Your task to perform on an android device: toggle location history Image 0: 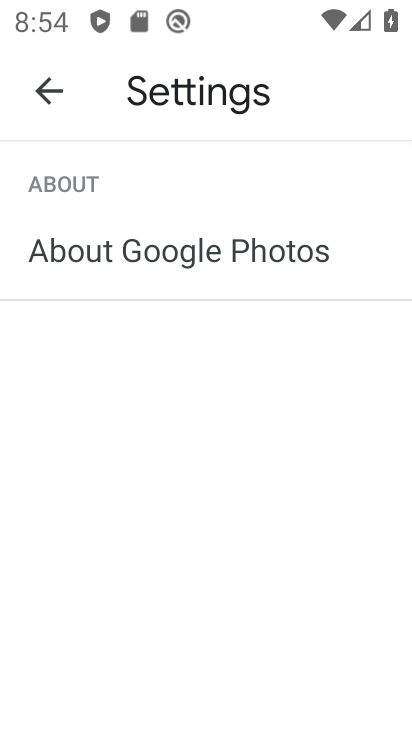
Step 0: press home button
Your task to perform on an android device: toggle location history Image 1: 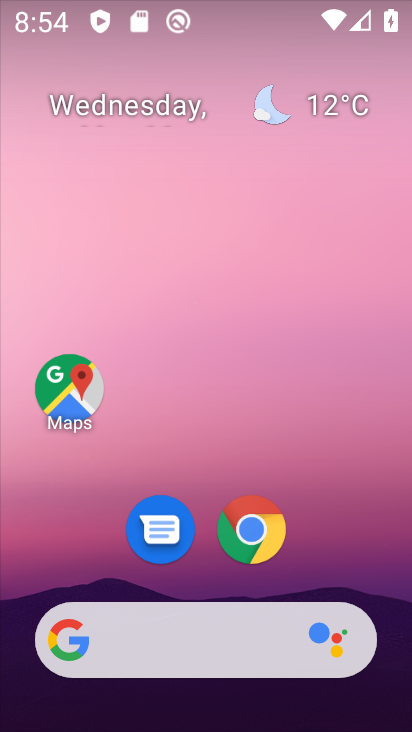
Step 1: drag from (186, 601) to (250, 70)
Your task to perform on an android device: toggle location history Image 2: 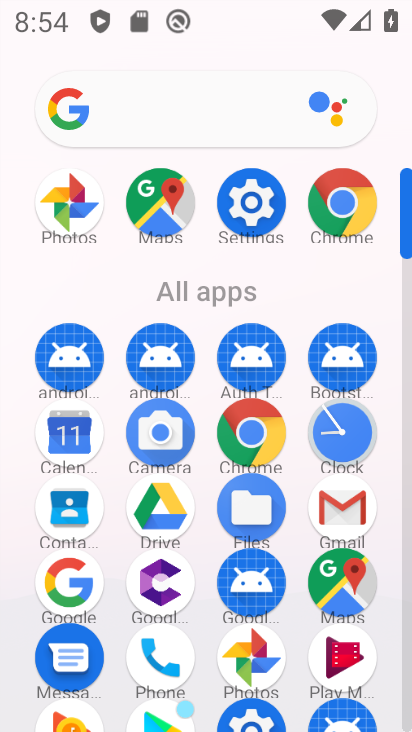
Step 2: click (259, 203)
Your task to perform on an android device: toggle location history Image 3: 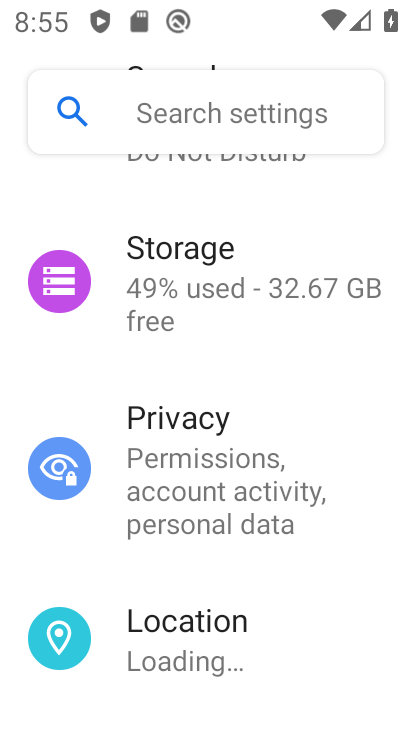
Step 3: click (191, 658)
Your task to perform on an android device: toggle location history Image 4: 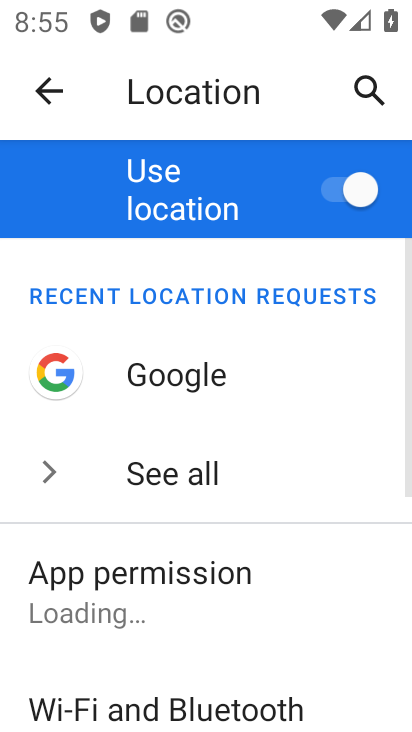
Step 4: drag from (190, 705) to (211, 275)
Your task to perform on an android device: toggle location history Image 5: 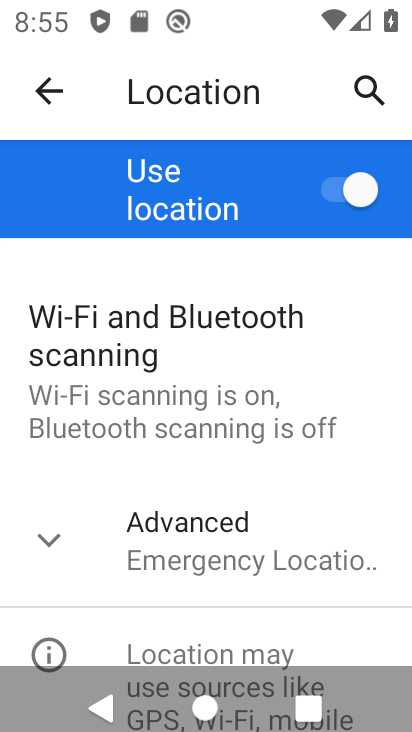
Step 5: drag from (236, 539) to (296, 287)
Your task to perform on an android device: toggle location history Image 6: 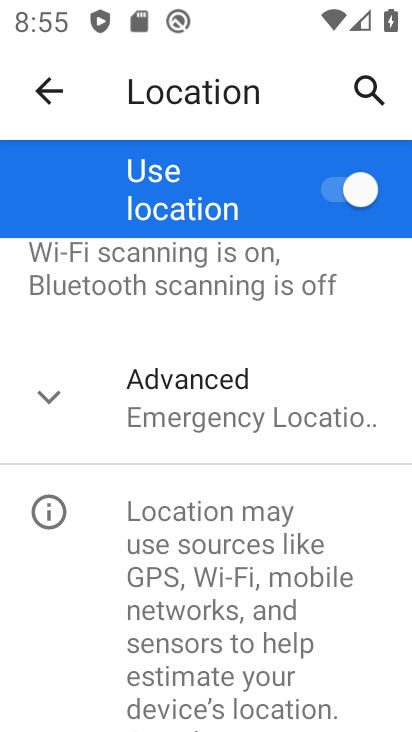
Step 6: click (225, 402)
Your task to perform on an android device: toggle location history Image 7: 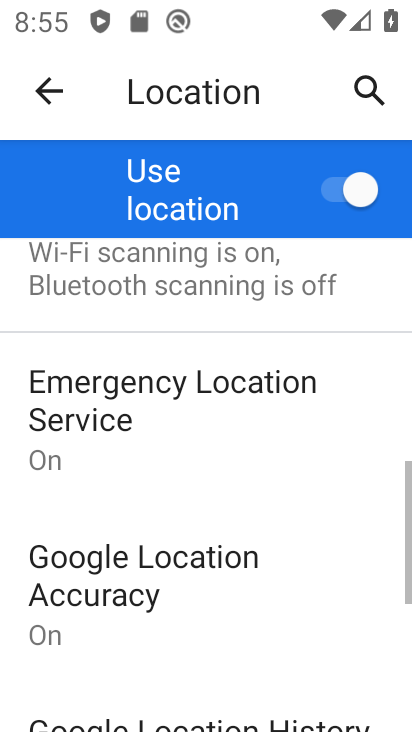
Step 7: drag from (249, 686) to (300, 265)
Your task to perform on an android device: toggle location history Image 8: 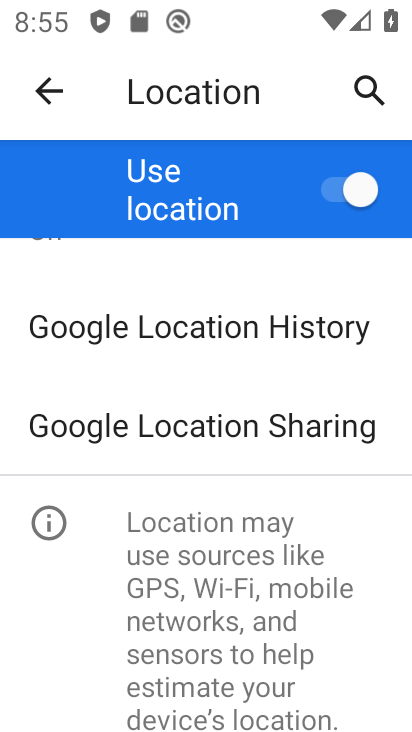
Step 8: click (300, 323)
Your task to perform on an android device: toggle location history Image 9: 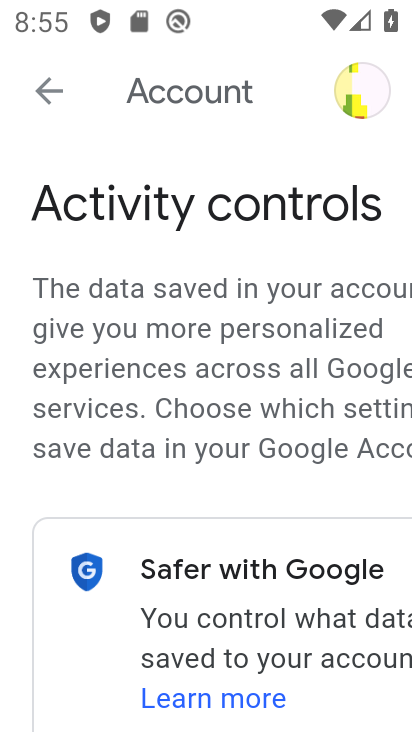
Step 9: drag from (257, 658) to (264, 212)
Your task to perform on an android device: toggle location history Image 10: 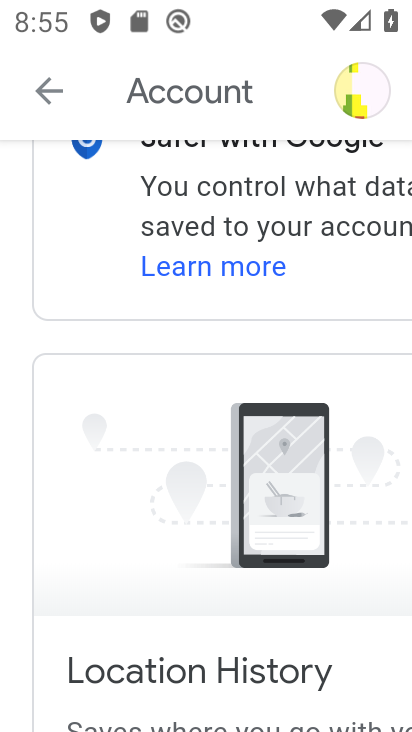
Step 10: drag from (274, 664) to (305, 230)
Your task to perform on an android device: toggle location history Image 11: 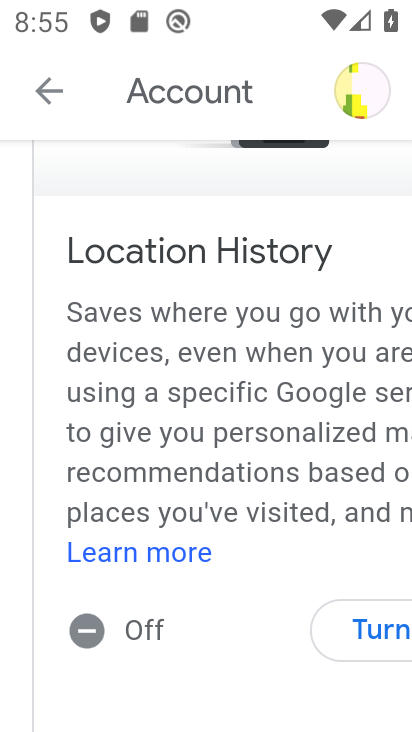
Step 11: click (380, 627)
Your task to perform on an android device: toggle location history Image 12: 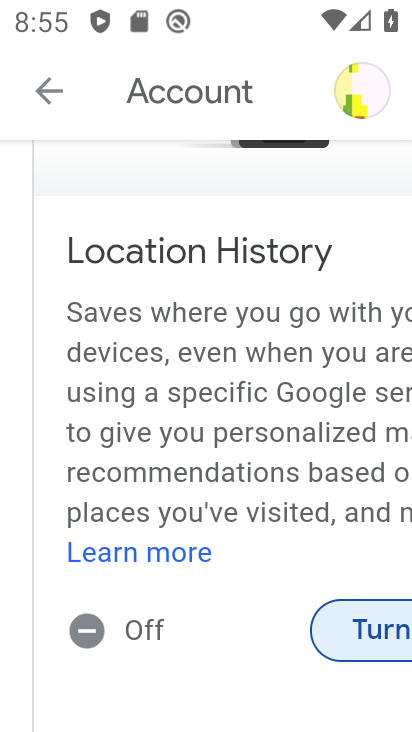
Step 12: click (372, 632)
Your task to perform on an android device: toggle location history Image 13: 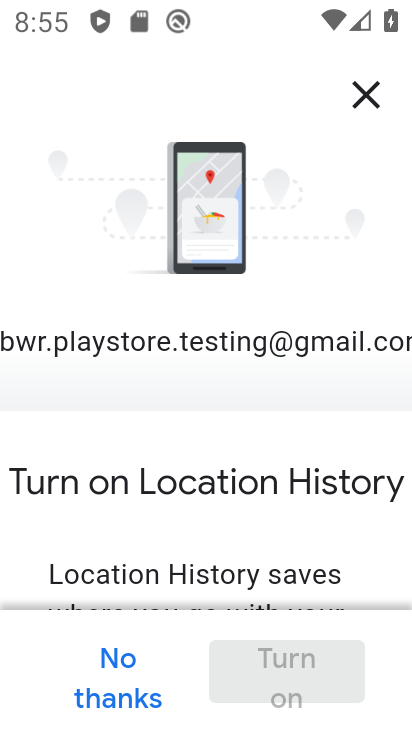
Step 13: drag from (265, 571) to (302, 204)
Your task to perform on an android device: toggle location history Image 14: 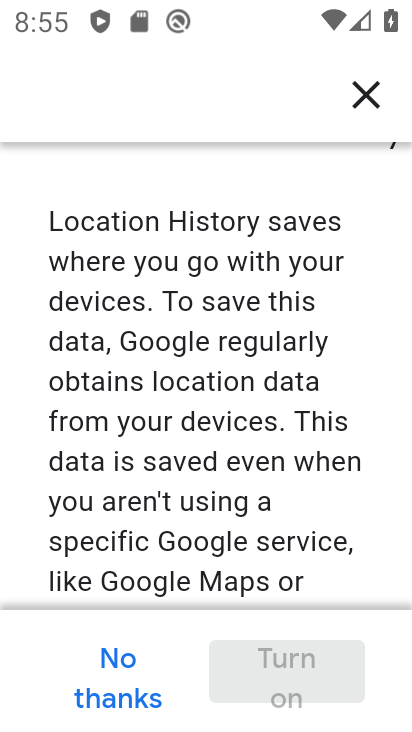
Step 14: drag from (308, 586) to (308, 200)
Your task to perform on an android device: toggle location history Image 15: 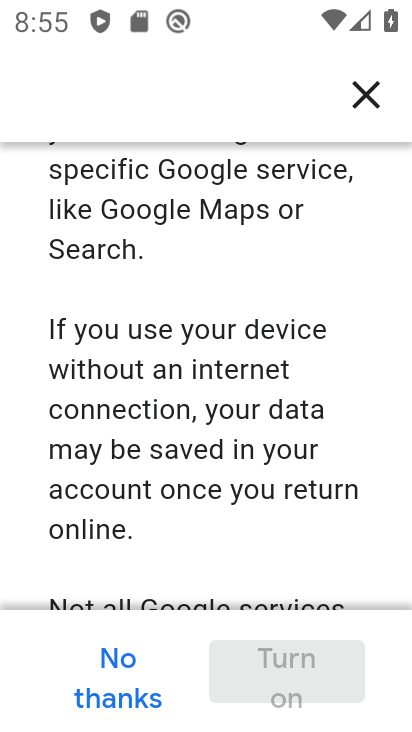
Step 15: drag from (308, 561) to (343, 112)
Your task to perform on an android device: toggle location history Image 16: 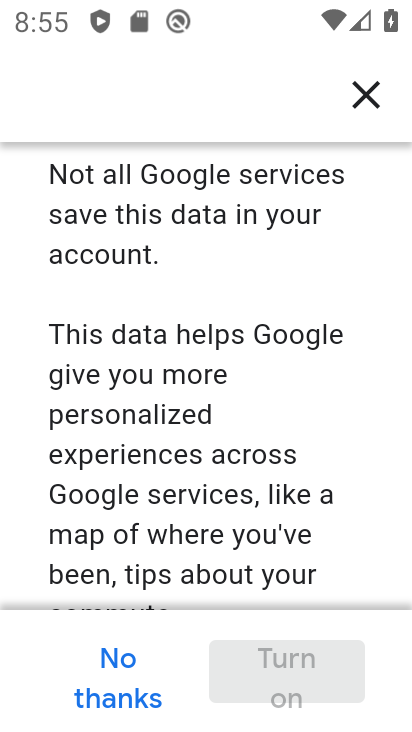
Step 16: drag from (307, 589) to (297, 163)
Your task to perform on an android device: toggle location history Image 17: 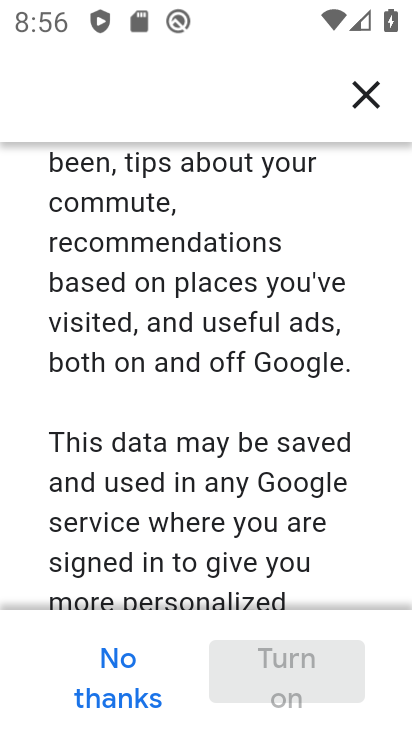
Step 17: drag from (286, 591) to (283, 186)
Your task to perform on an android device: toggle location history Image 18: 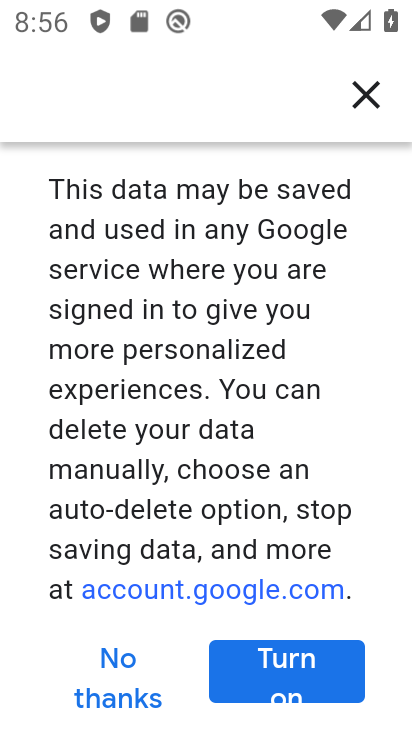
Step 18: click (281, 675)
Your task to perform on an android device: toggle location history Image 19: 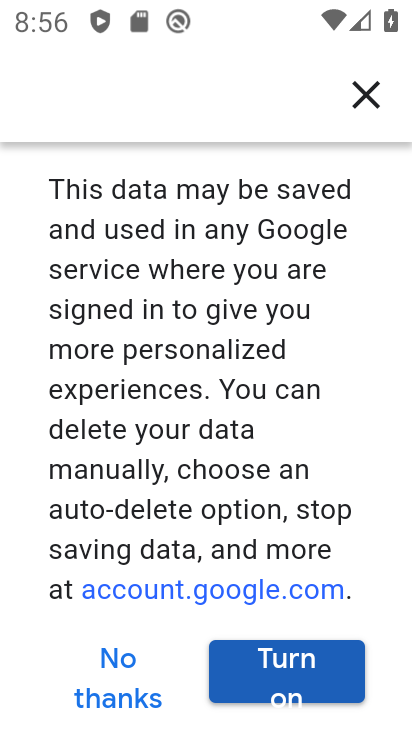
Step 19: click (282, 667)
Your task to perform on an android device: toggle location history Image 20: 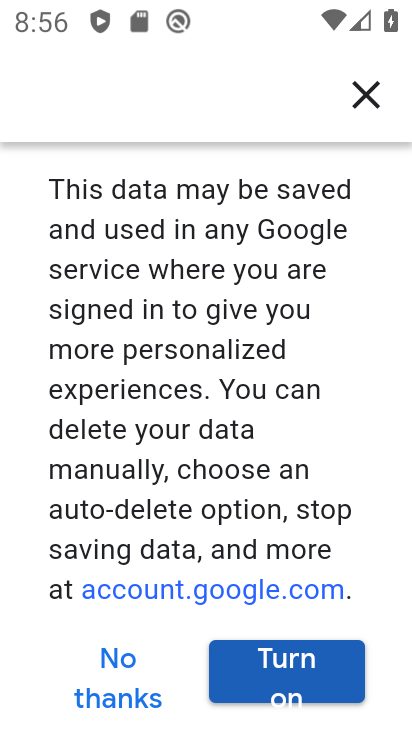
Step 20: click (304, 672)
Your task to perform on an android device: toggle location history Image 21: 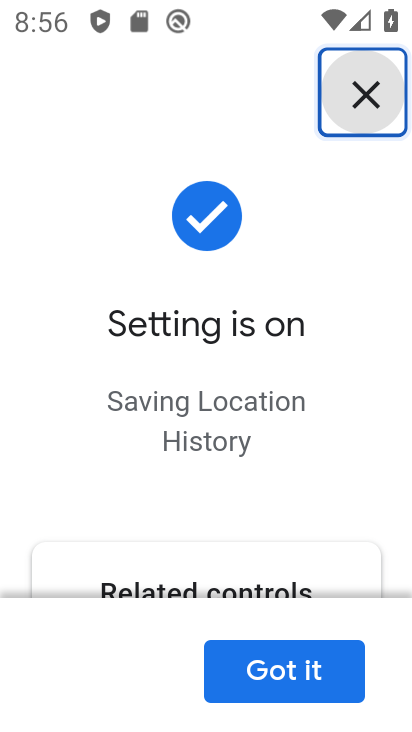
Step 21: click (304, 672)
Your task to perform on an android device: toggle location history Image 22: 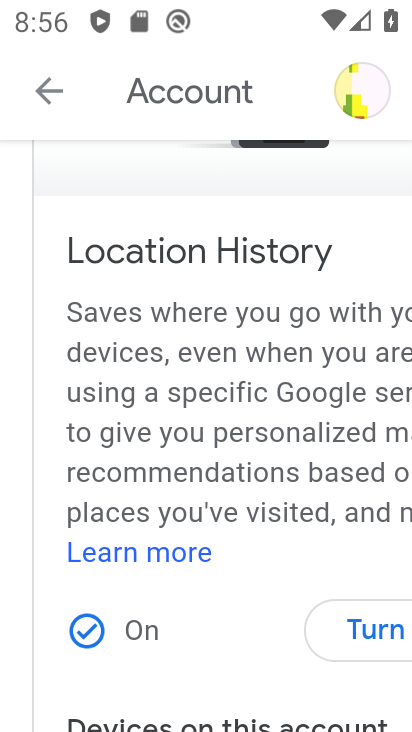
Step 22: task complete